Your task to perform on an android device: Open Google Chrome and click the shortcut for Amazon.com Image 0: 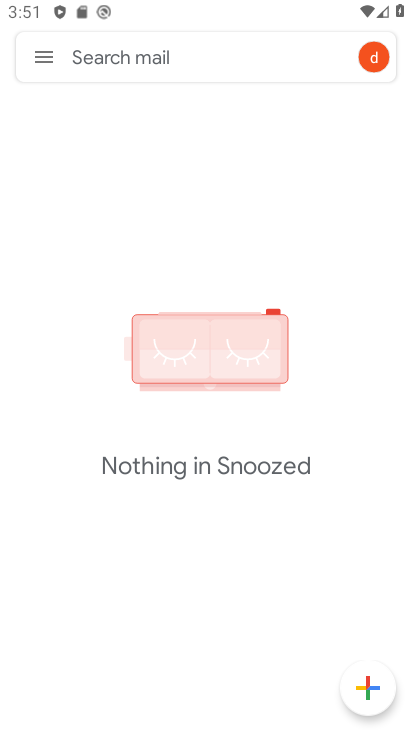
Step 0: press home button
Your task to perform on an android device: Open Google Chrome and click the shortcut for Amazon.com Image 1: 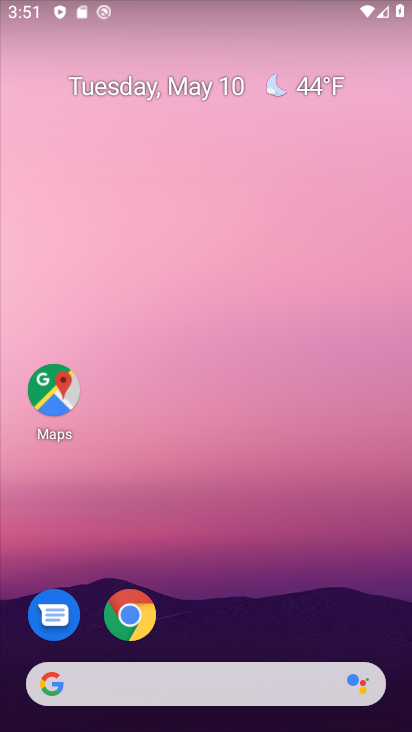
Step 1: click (128, 614)
Your task to perform on an android device: Open Google Chrome and click the shortcut for Amazon.com Image 2: 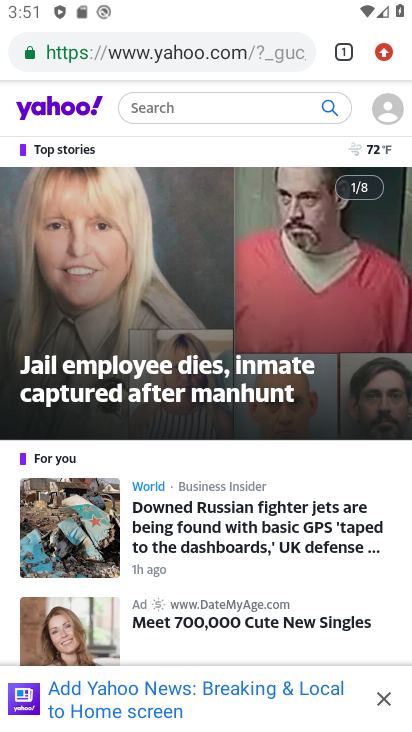
Step 2: click (384, 59)
Your task to perform on an android device: Open Google Chrome and click the shortcut for Amazon.com Image 3: 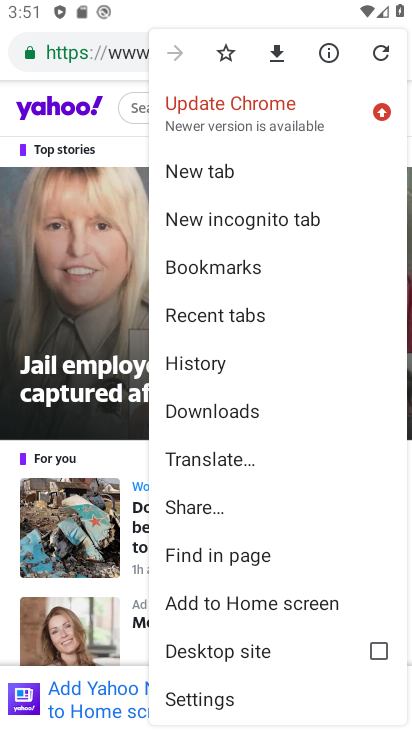
Step 3: click (208, 171)
Your task to perform on an android device: Open Google Chrome and click the shortcut for Amazon.com Image 4: 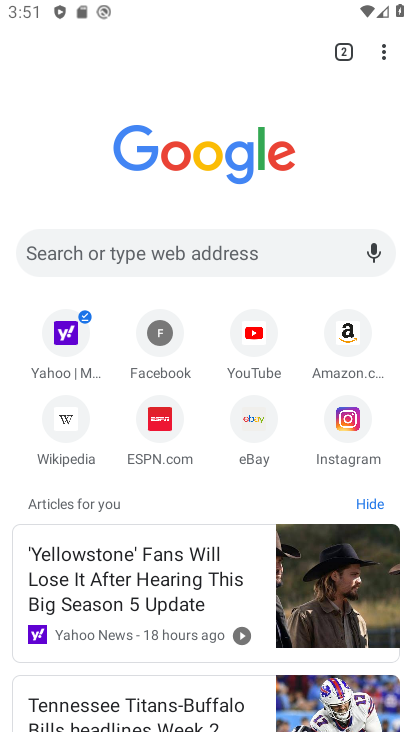
Step 4: click (346, 338)
Your task to perform on an android device: Open Google Chrome and click the shortcut for Amazon.com Image 5: 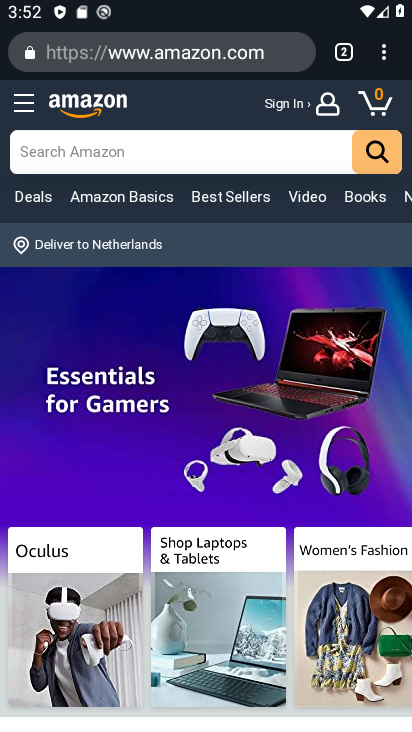
Step 5: task complete